Your task to perform on an android device: open app "Google Chat" (install if not already installed) Image 0: 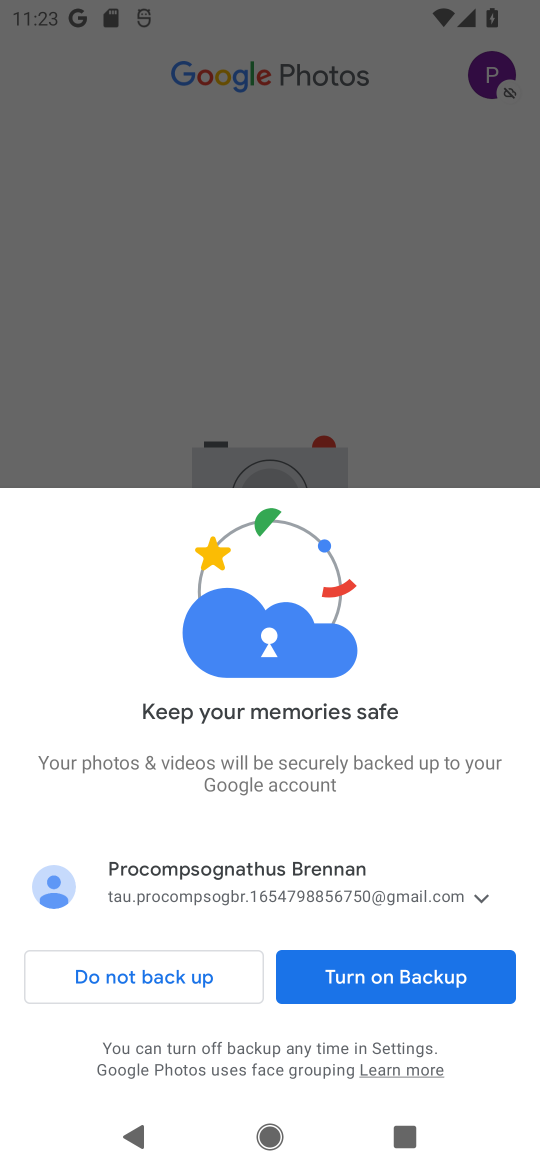
Step 0: press back button
Your task to perform on an android device: open app "Google Chat" (install if not already installed) Image 1: 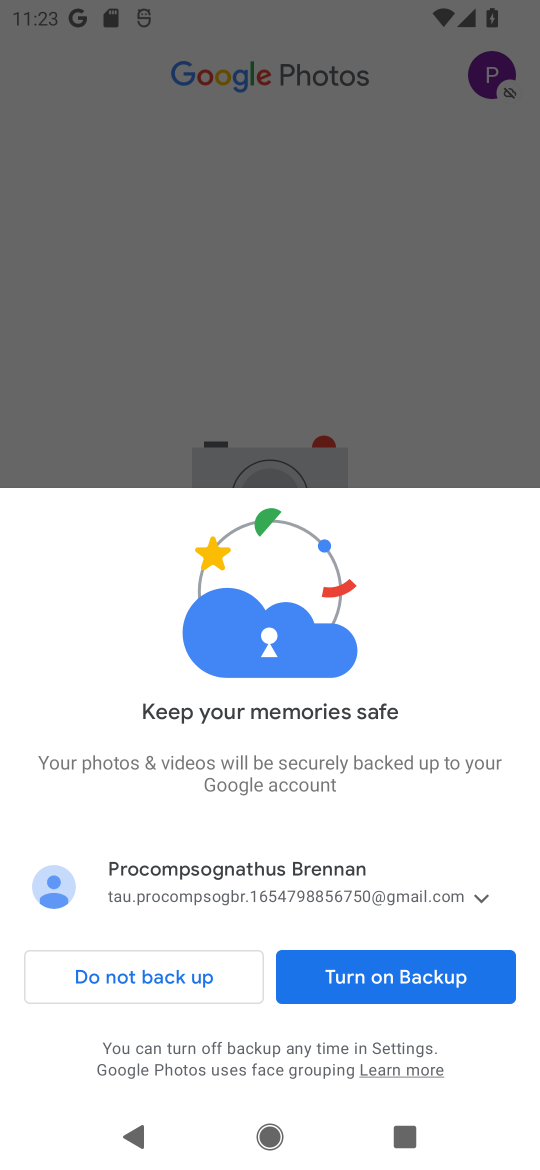
Step 1: press back button
Your task to perform on an android device: open app "Google Chat" (install if not already installed) Image 2: 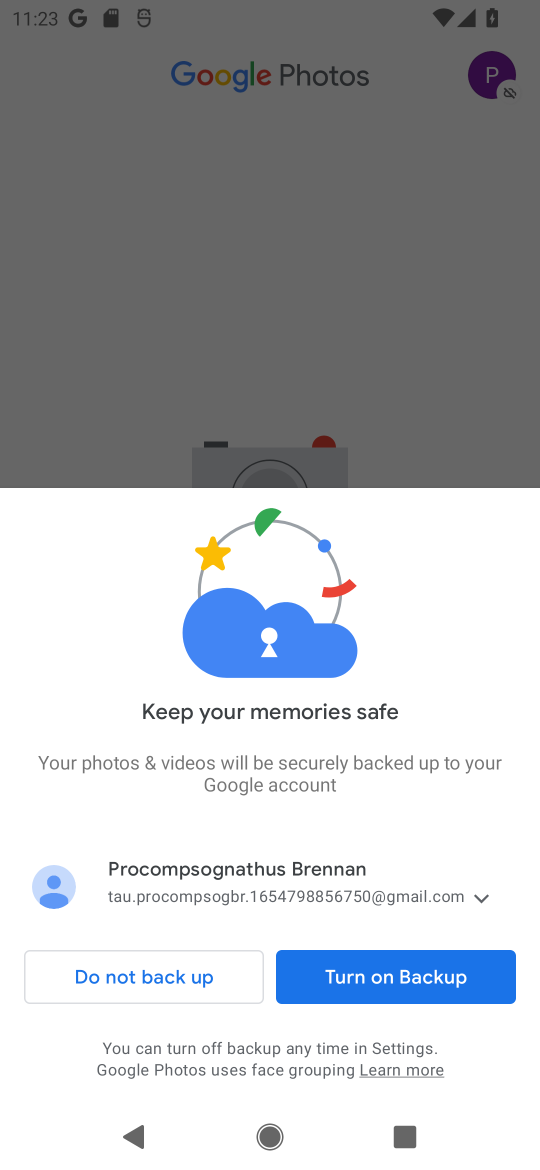
Step 2: press home button
Your task to perform on an android device: open app "Google Chat" (install if not already installed) Image 3: 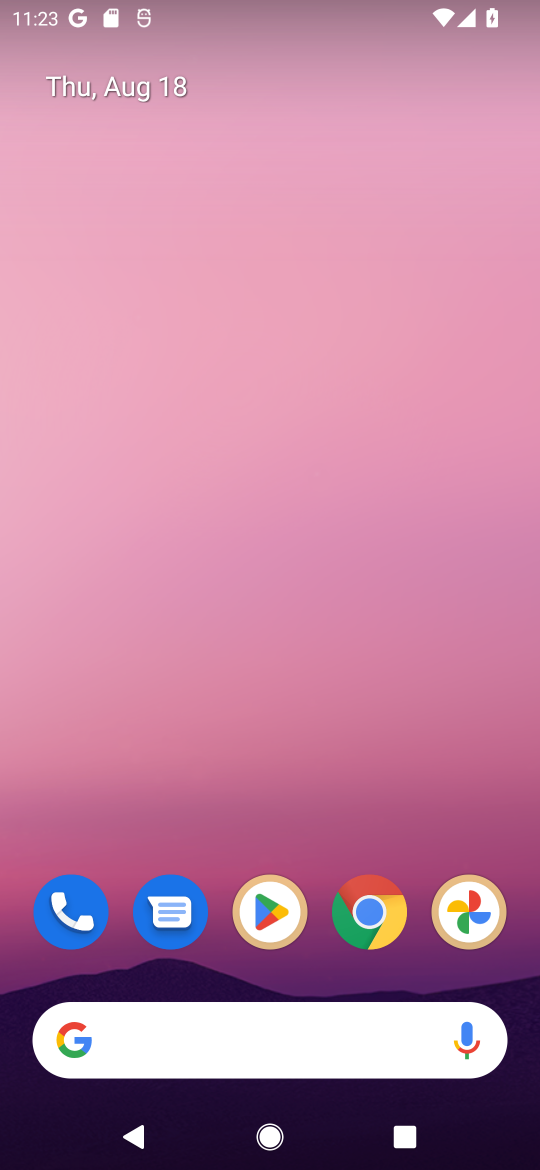
Step 3: click (257, 920)
Your task to perform on an android device: open app "Google Chat" (install if not already installed) Image 4: 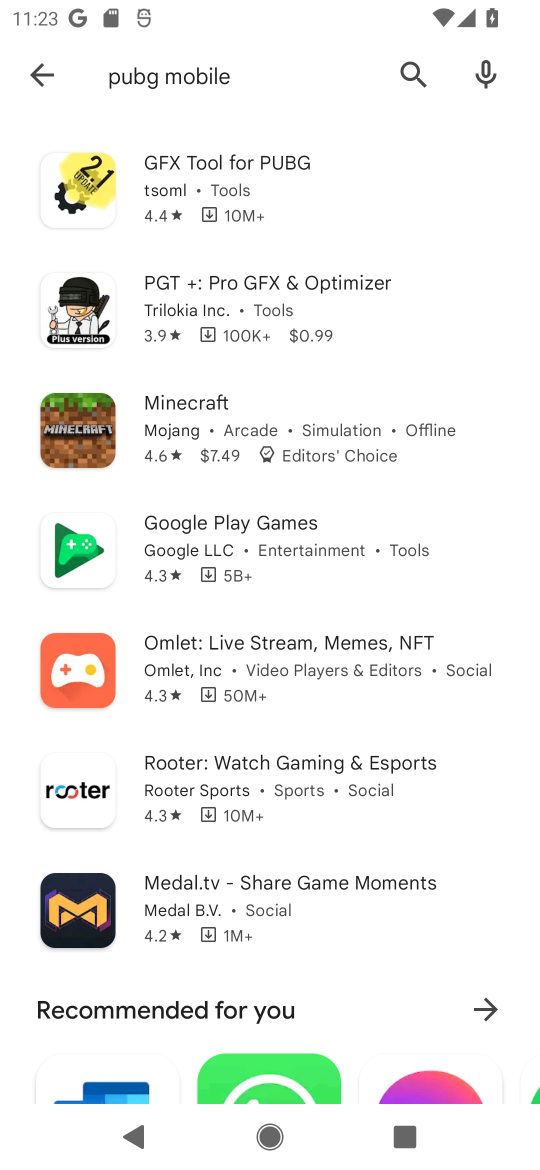
Step 4: click (406, 66)
Your task to perform on an android device: open app "Google Chat" (install if not already installed) Image 5: 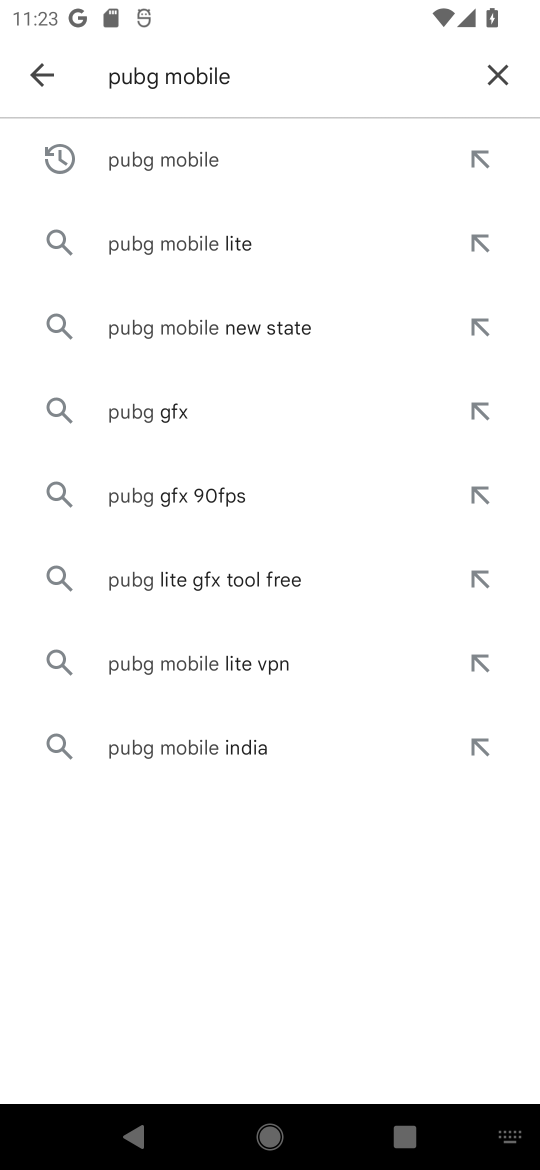
Step 5: click (507, 64)
Your task to perform on an android device: open app "Google Chat" (install if not already installed) Image 6: 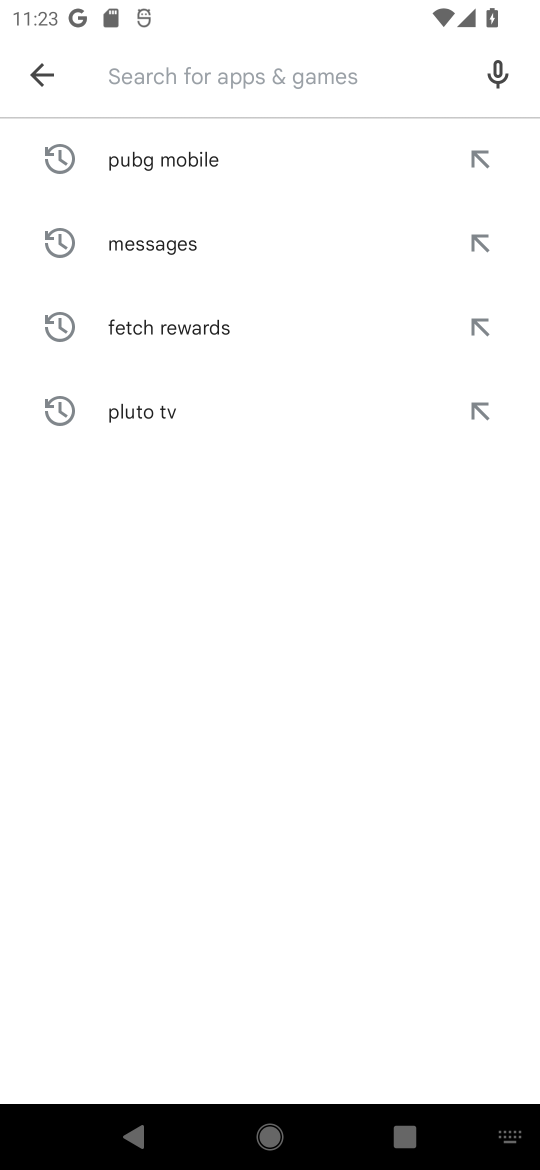
Step 6: click (200, 69)
Your task to perform on an android device: open app "Google Chat" (install if not already installed) Image 7: 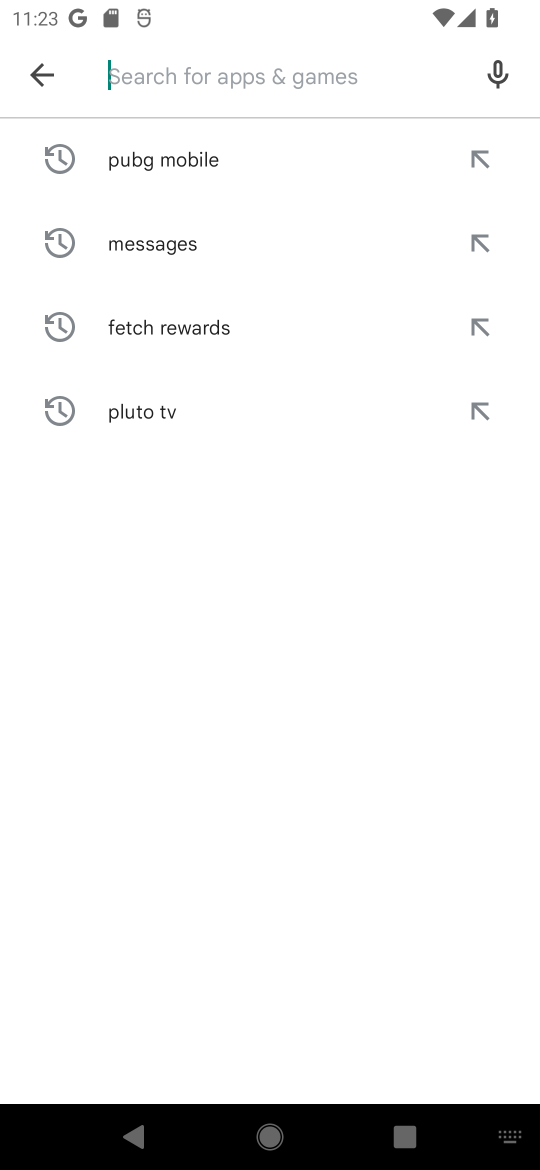
Step 7: type "Google Chat"
Your task to perform on an android device: open app "Google Chat" (install if not already installed) Image 8: 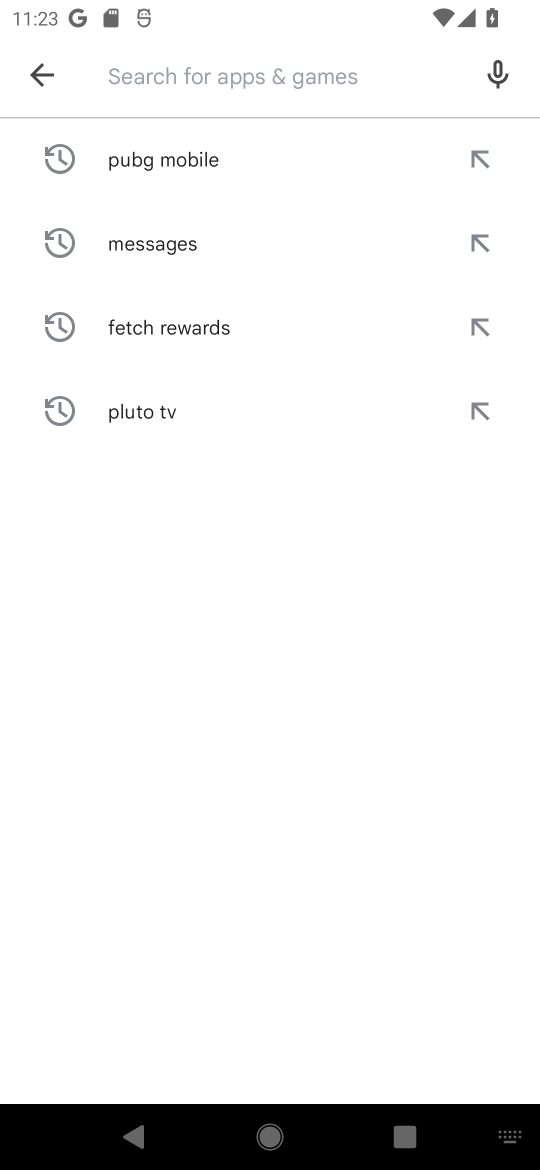
Step 8: click (239, 676)
Your task to perform on an android device: open app "Google Chat" (install if not already installed) Image 9: 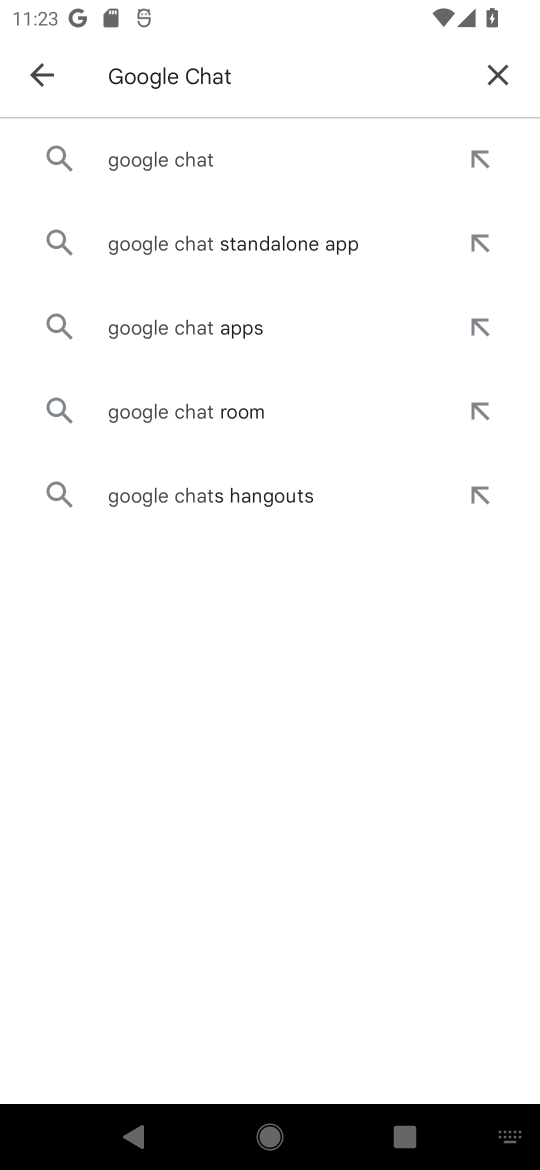
Step 9: click (200, 161)
Your task to perform on an android device: open app "Google Chat" (install if not already installed) Image 10: 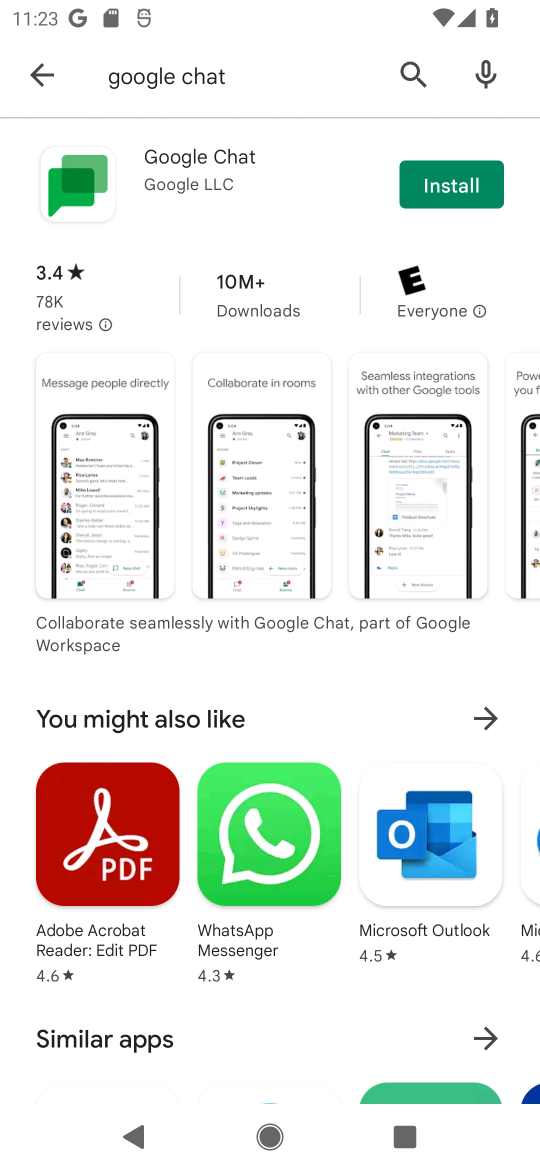
Step 10: click (451, 183)
Your task to perform on an android device: open app "Google Chat" (install if not already installed) Image 11: 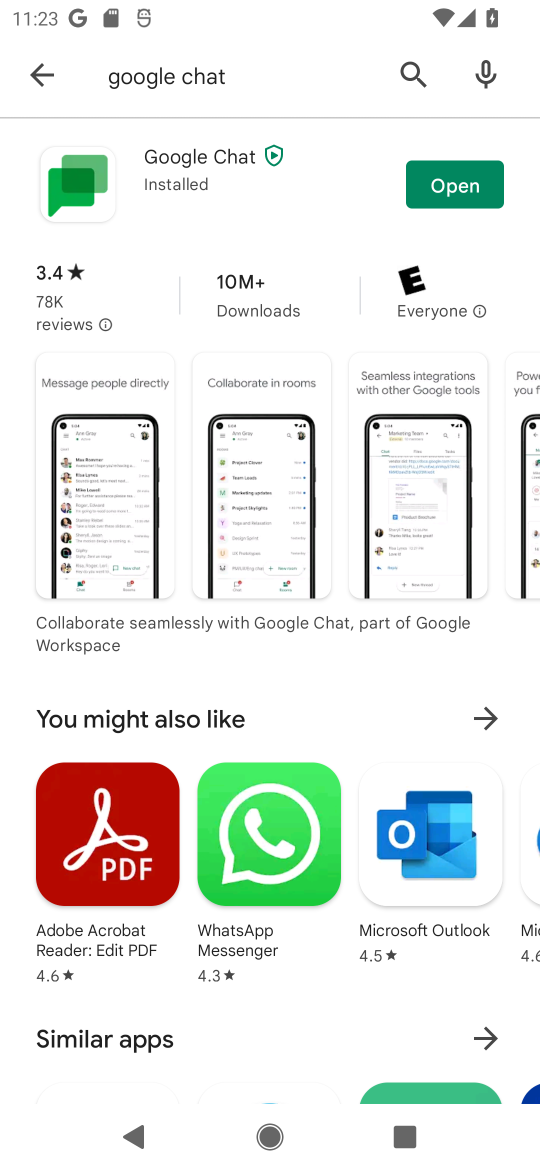
Step 11: click (438, 185)
Your task to perform on an android device: open app "Google Chat" (install if not already installed) Image 12: 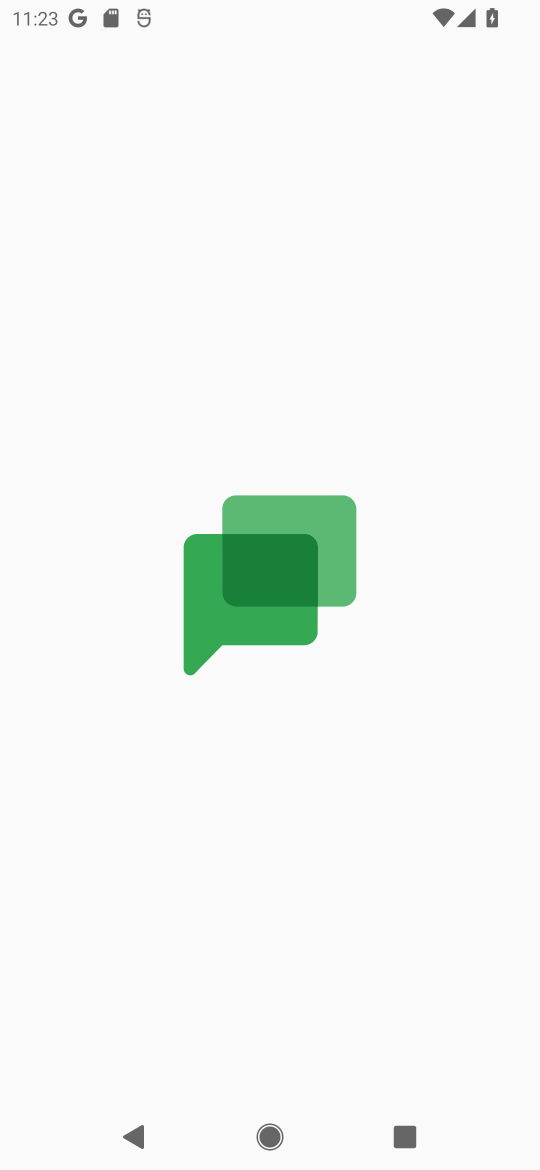
Step 12: task complete